Your task to perform on an android device: turn on location history Image 0: 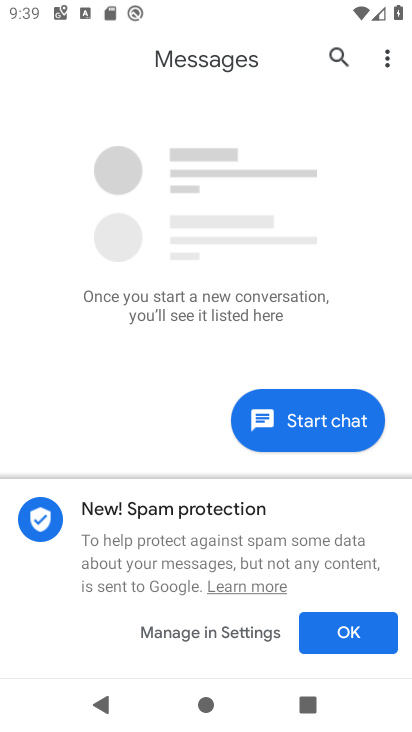
Step 0: press home button
Your task to perform on an android device: turn on location history Image 1: 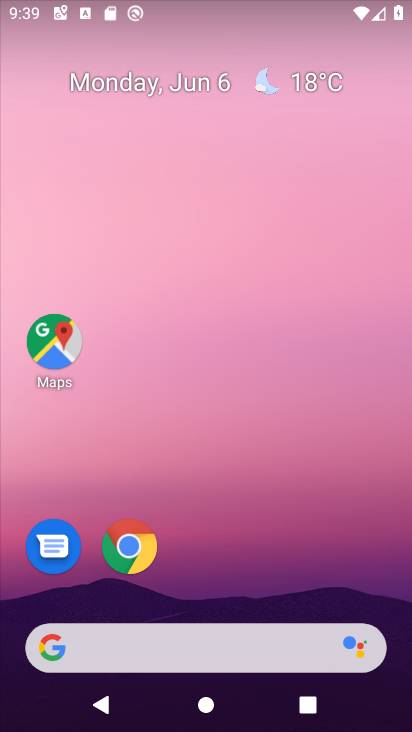
Step 1: drag from (360, 573) to (298, 23)
Your task to perform on an android device: turn on location history Image 2: 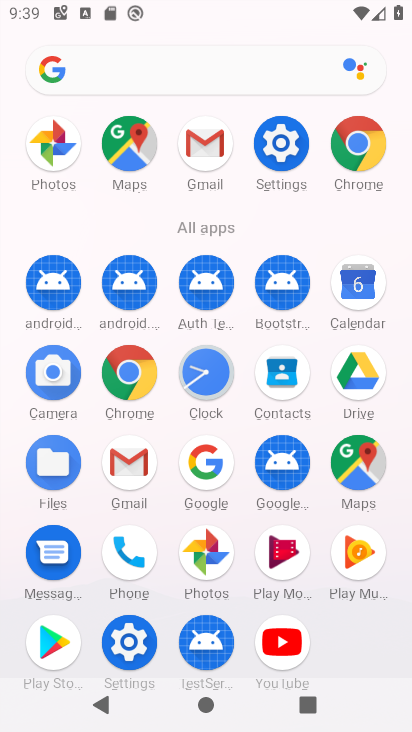
Step 2: click (129, 636)
Your task to perform on an android device: turn on location history Image 3: 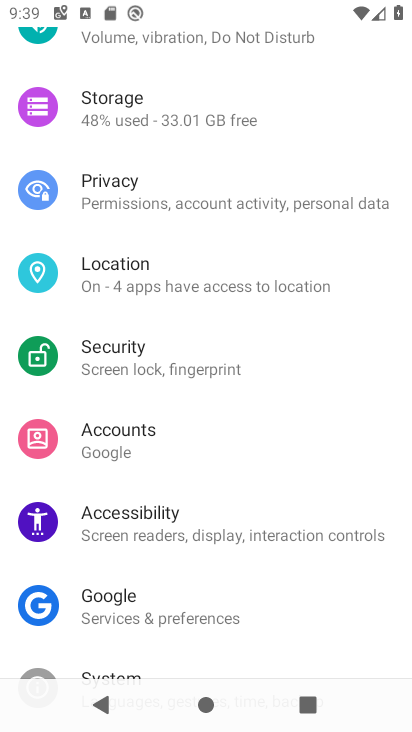
Step 3: click (94, 268)
Your task to perform on an android device: turn on location history Image 4: 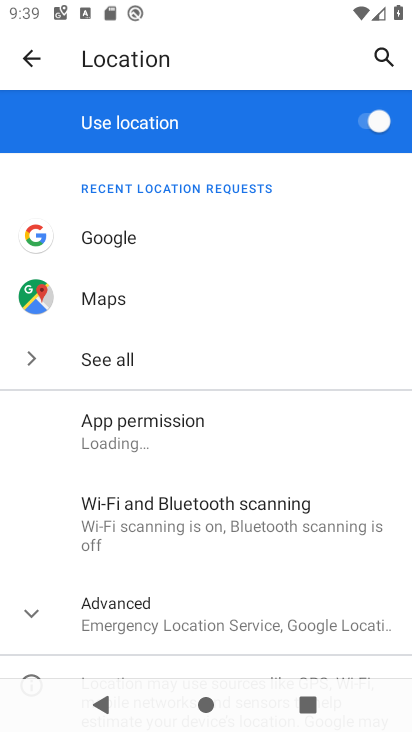
Step 4: click (150, 607)
Your task to perform on an android device: turn on location history Image 5: 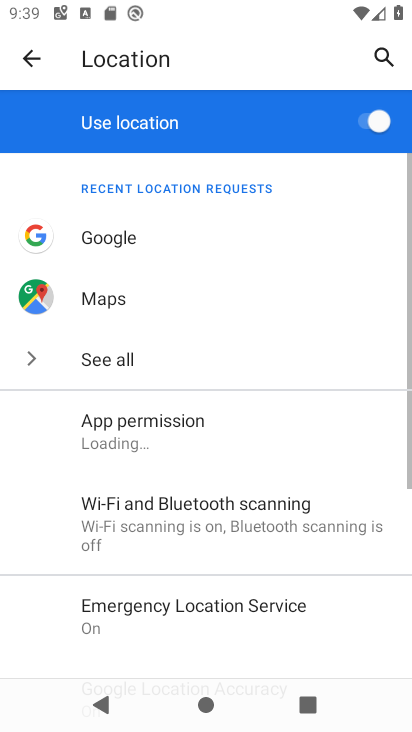
Step 5: drag from (310, 595) to (299, 236)
Your task to perform on an android device: turn on location history Image 6: 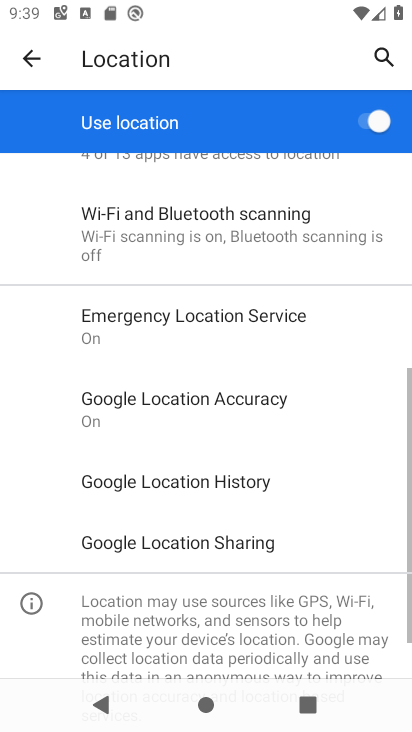
Step 6: click (203, 474)
Your task to perform on an android device: turn on location history Image 7: 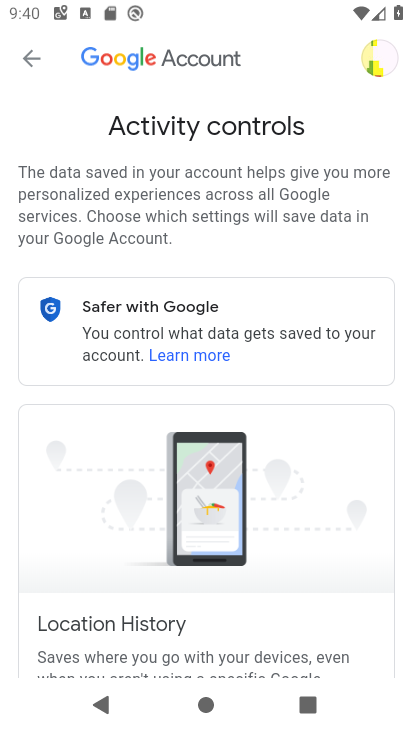
Step 7: task complete